Your task to perform on an android device: Go to sound settings Image 0: 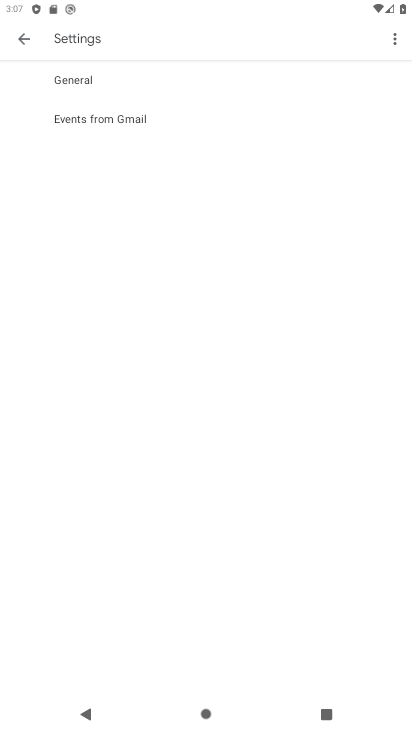
Step 0: press home button
Your task to perform on an android device: Go to sound settings Image 1: 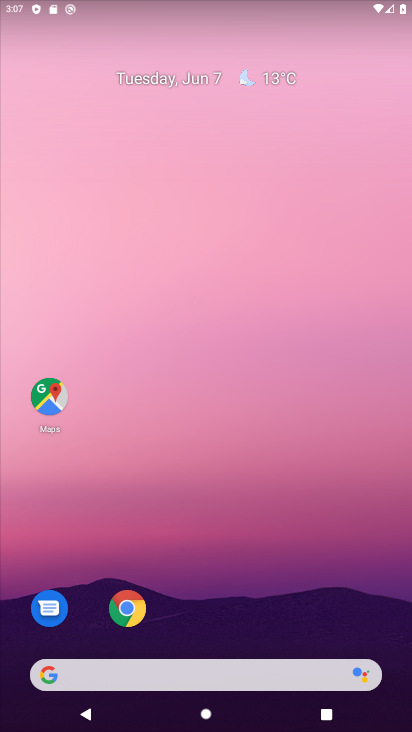
Step 1: drag from (198, 641) to (302, 94)
Your task to perform on an android device: Go to sound settings Image 2: 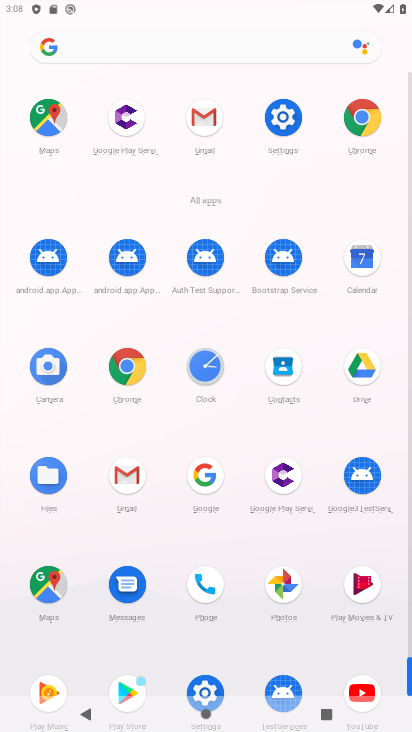
Step 2: drag from (187, 601) to (250, 351)
Your task to perform on an android device: Go to sound settings Image 3: 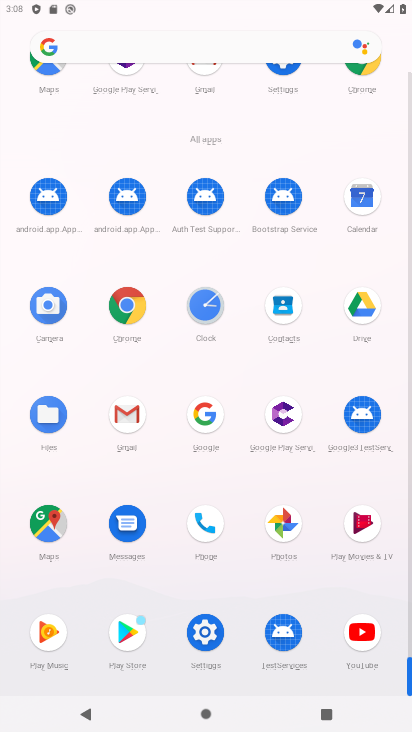
Step 3: click (197, 648)
Your task to perform on an android device: Go to sound settings Image 4: 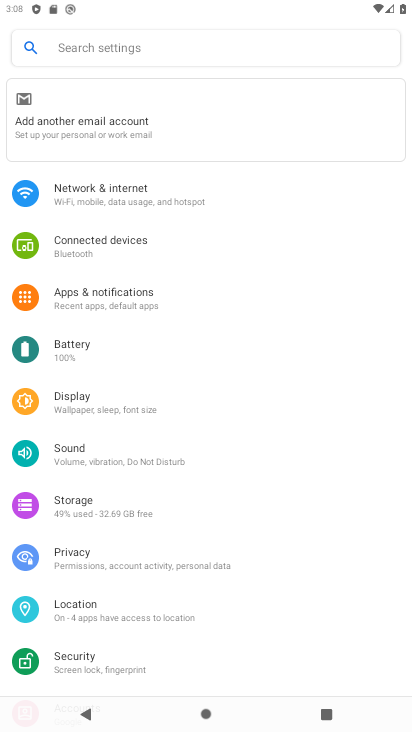
Step 4: click (117, 462)
Your task to perform on an android device: Go to sound settings Image 5: 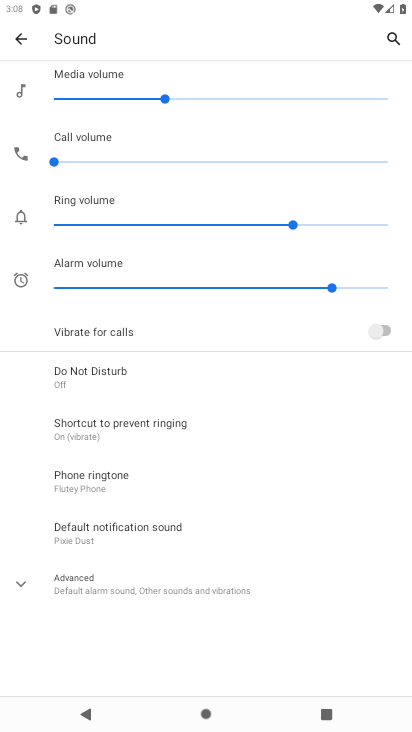
Step 5: task complete